Your task to perform on an android device: turn on notifications settings in the gmail app Image 0: 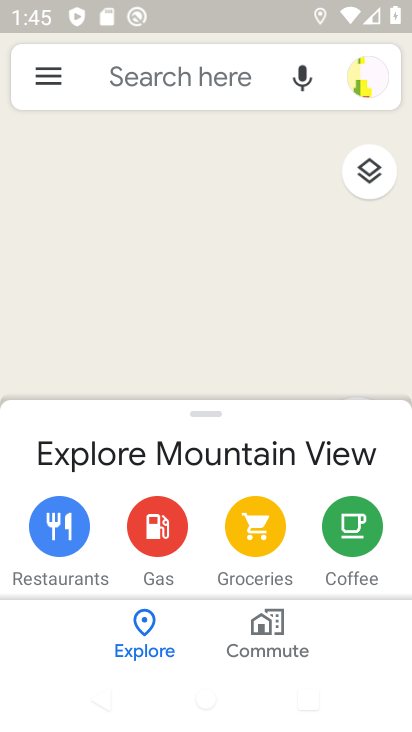
Step 0: press home button
Your task to perform on an android device: turn on notifications settings in the gmail app Image 1: 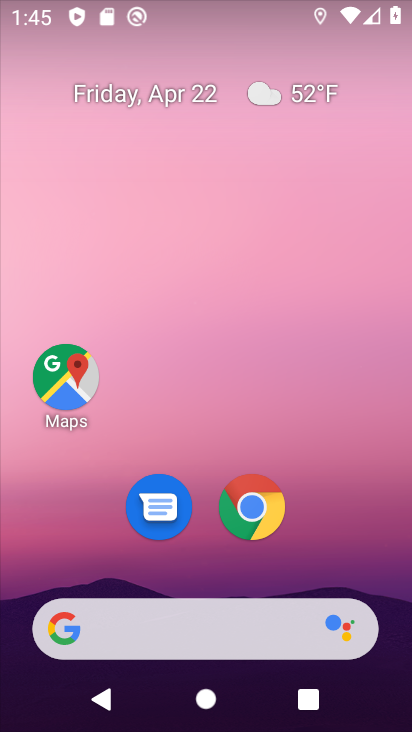
Step 1: drag from (168, 634) to (269, 139)
Your task to perform on an android device: turn on notifications settings in the gmail app Image 2: 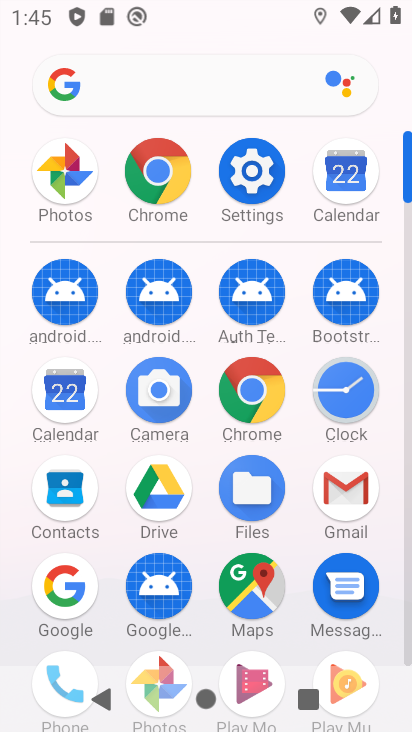
Step 2: click (343, 490)
Your task to perform on an android device: turn on notifications settings in the gmail app Image 3: 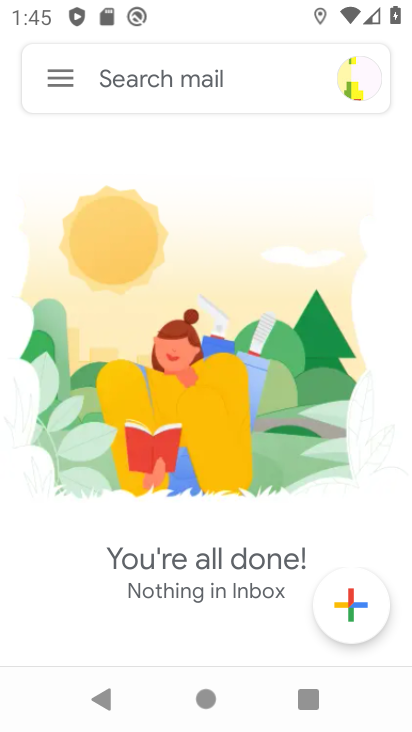
Step 3: click (62, 77)
Your task to perform on an android device: turn on notifications settings in the gmail app Image 4: 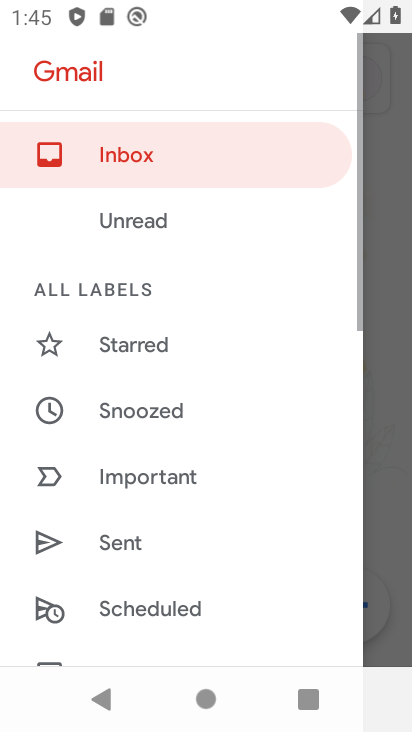
Step 4: drag from (151, 583) to (312, 181)
Your task to perform on an android device: turn on notifications settings in the gmail app Image 5: 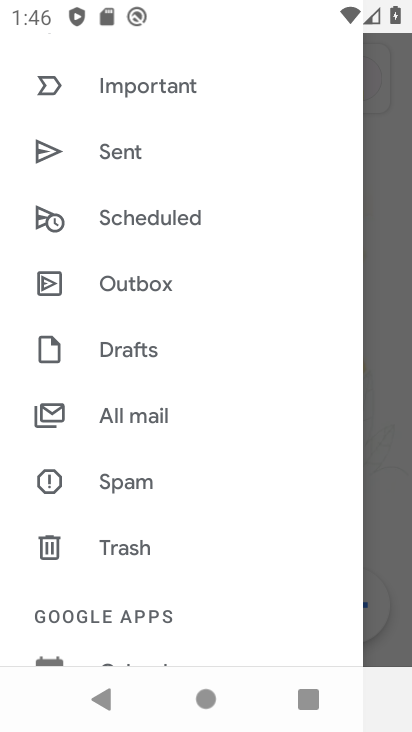
Step 5: drag from (172, 590) to (226, 126)
Your task to perform on an android device: turn on notifications settings in the gmail app Image 6: 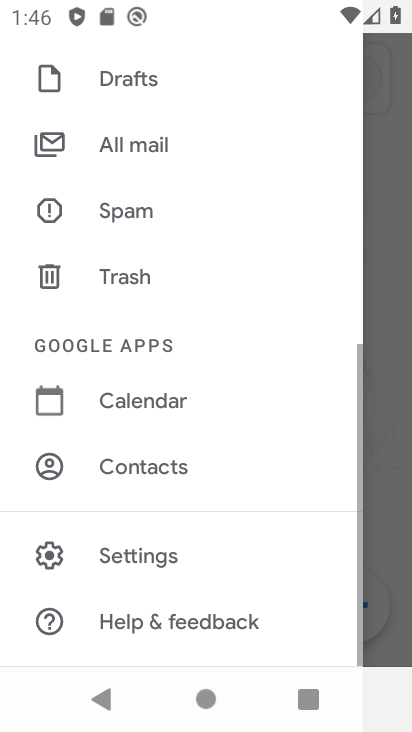
Step 6: click (164, 560)
Your task to perform on an android device: turn on notifications settings in the gmail app Image 7: 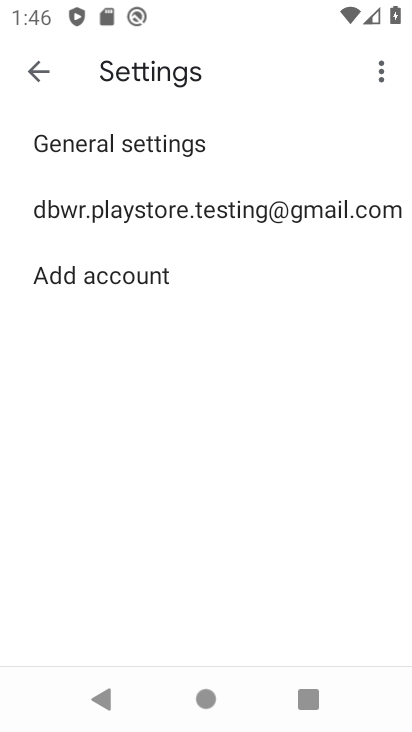
Step 7: click (249, 213)
Your task to perform on an android device: turn on notifications settings in the gmail app Image 8: 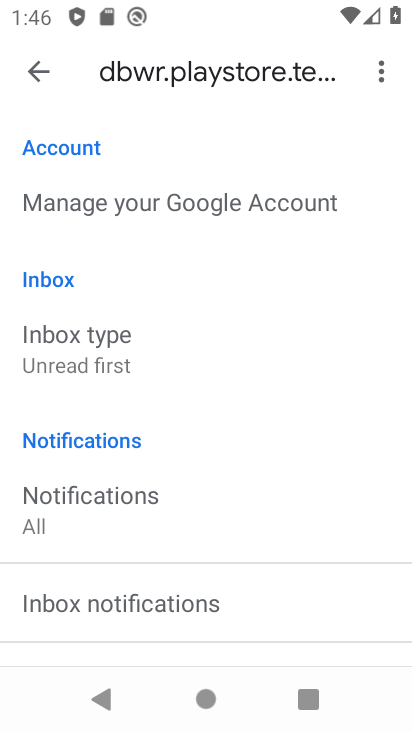
Step 8: click (108, 507)
Your task to perform on an android device: turn on notifications settings in the gmail app Image 9: 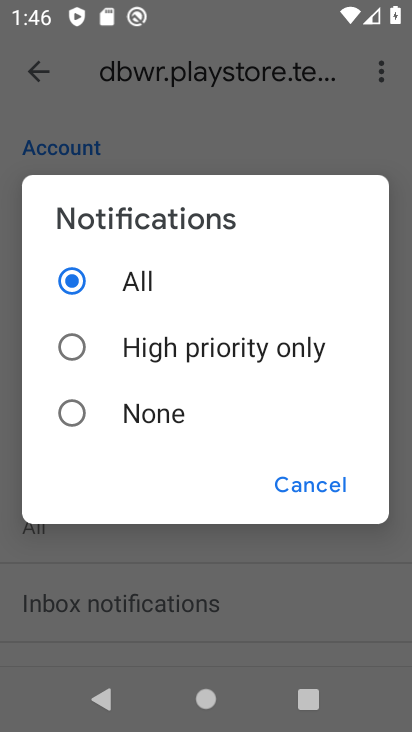
Step 9: task complete